Your task to perform on an android device: Open settings Image 0: 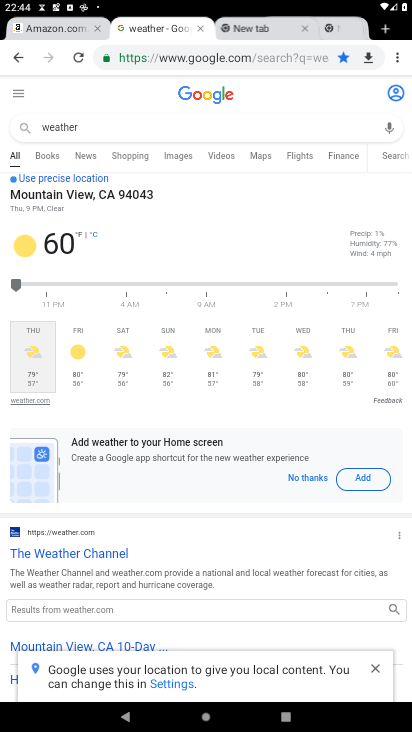
Step 0: press home button
Your task to perform on an android device: Open settings Image 1: 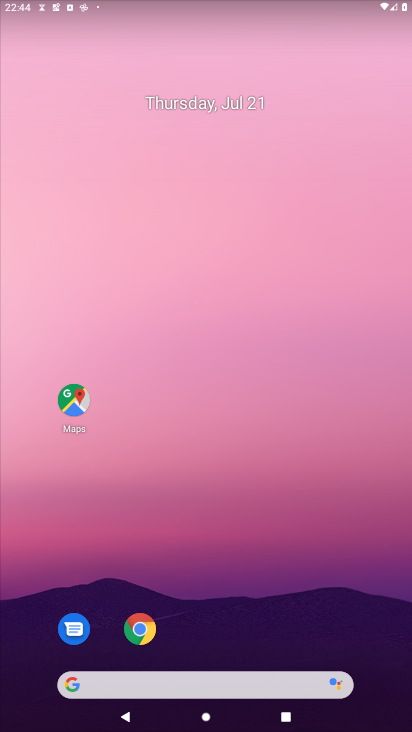
Step 1: drag from (268, 626) to (269, 82)
Your task to perform on an android device: Open settings Image 2: 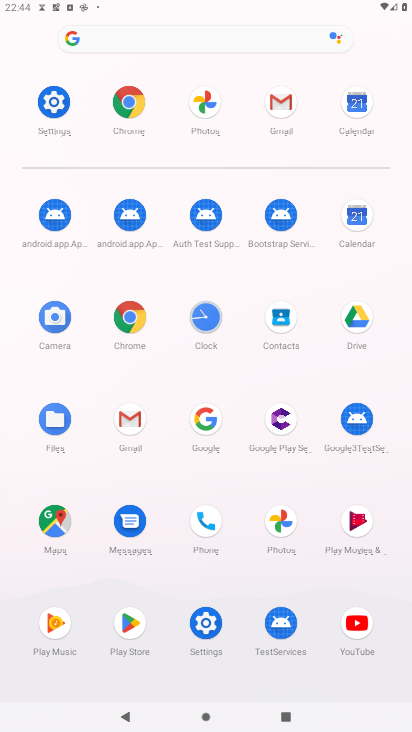
Step 2: click (47, 109)
Your task to perform on an android device: Open settings Image 3: 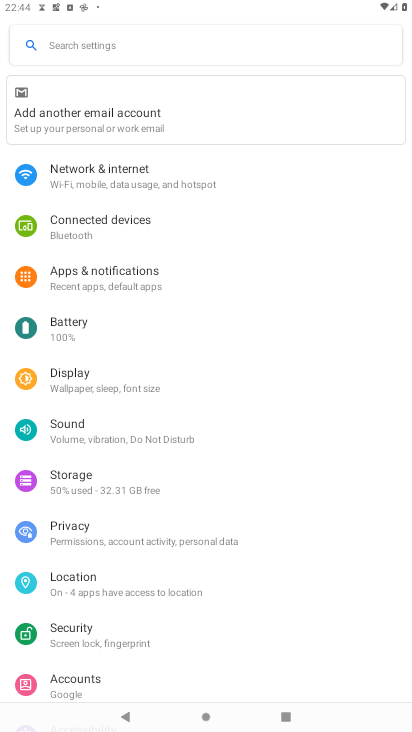
Step 3: task complete